Your task to perform on an android device: check android version Image 0: 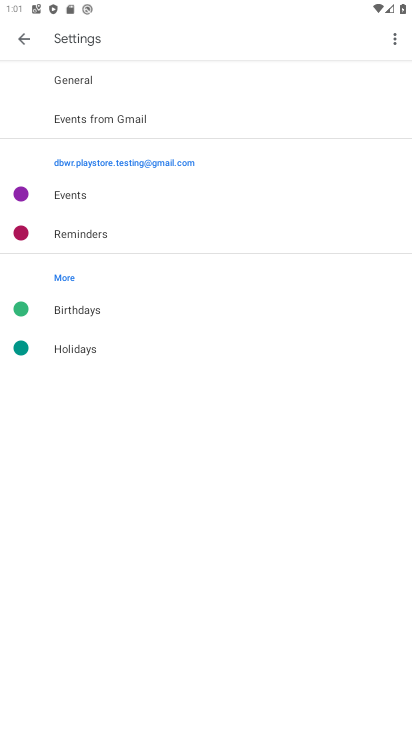
Step 0: press home button
Your task to perform on an android device: check android version Image 1: 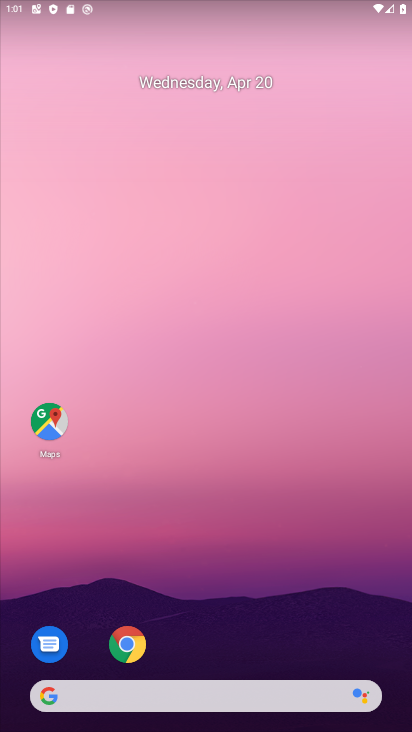
Step 1: drag from (236, 186) to (252, 7)
Your task to perform on an android device: check android version Image 2: 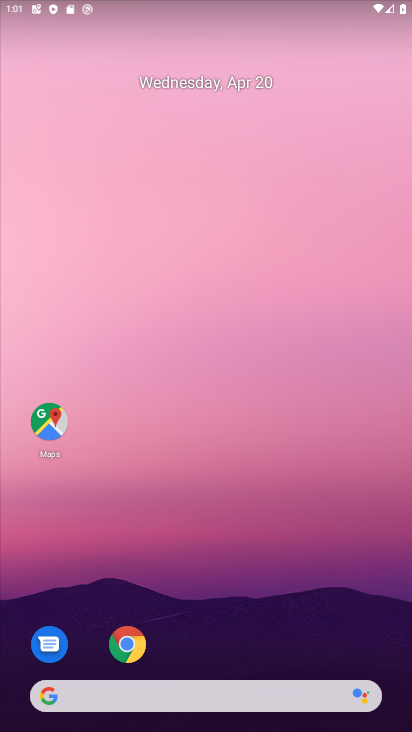
Step 2: drag from (199, 600) to (228, 146)
Your task to perform on an android device: check android version Image 3: 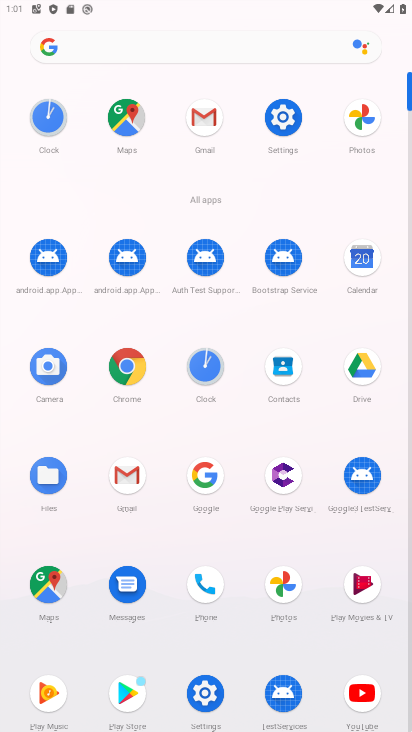
Step 3: click (273, 120)
Your task to perform on an android device: check android version Image 4: 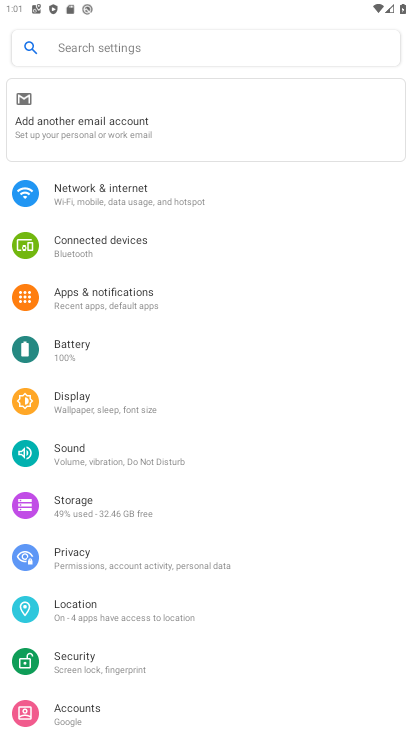
Step 4: drag from (208, 429) to (211, 90)
Your task to perform on an android device: check android version Image 5: 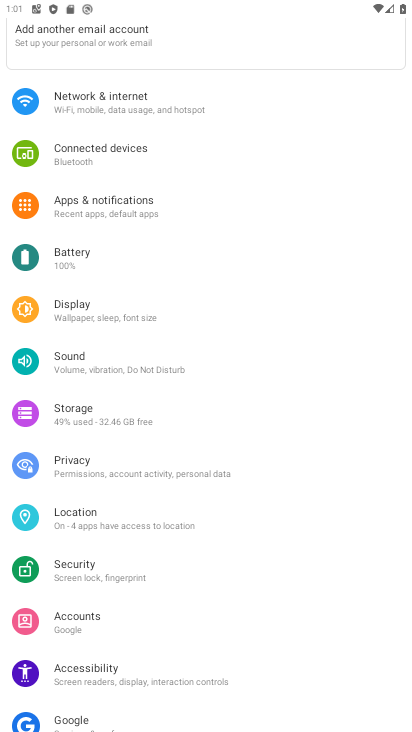
Step 5: drag from (144, 669) to (147, 303)
Your task to perform on an android device: check android version Image 6: 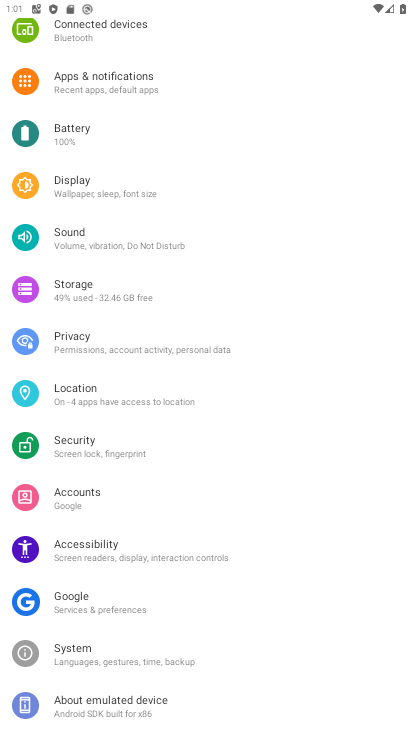
Step 6: click (124, 704)
Your task to perform on an android device: check android version Image 7: 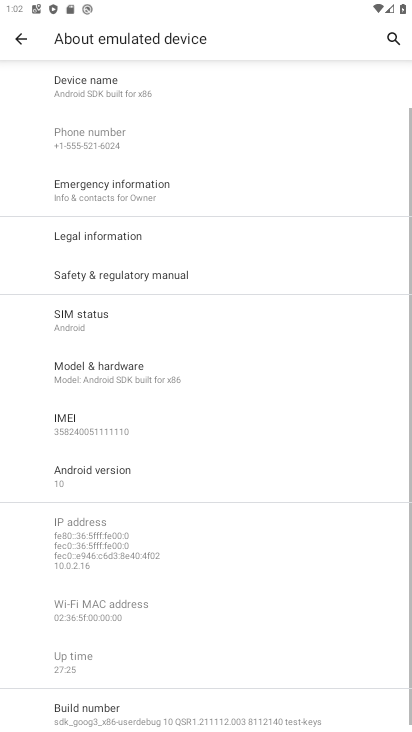
Step 7: click (117, 488)
Your task to perform on an android device: check android version Image 8: 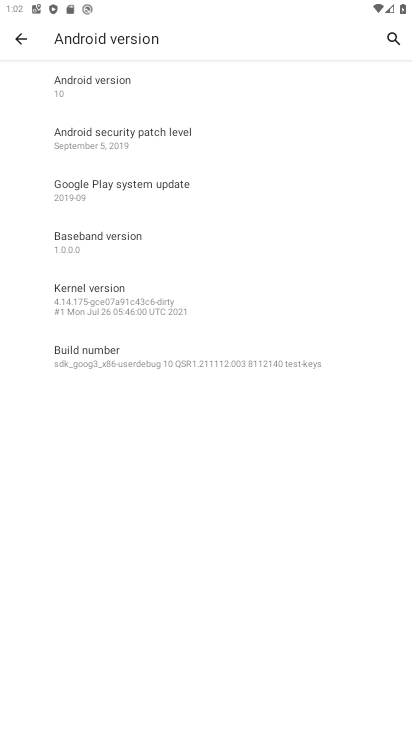
Step 8: task complete